Your task to perform on an android device: Go to display settings Image 0: 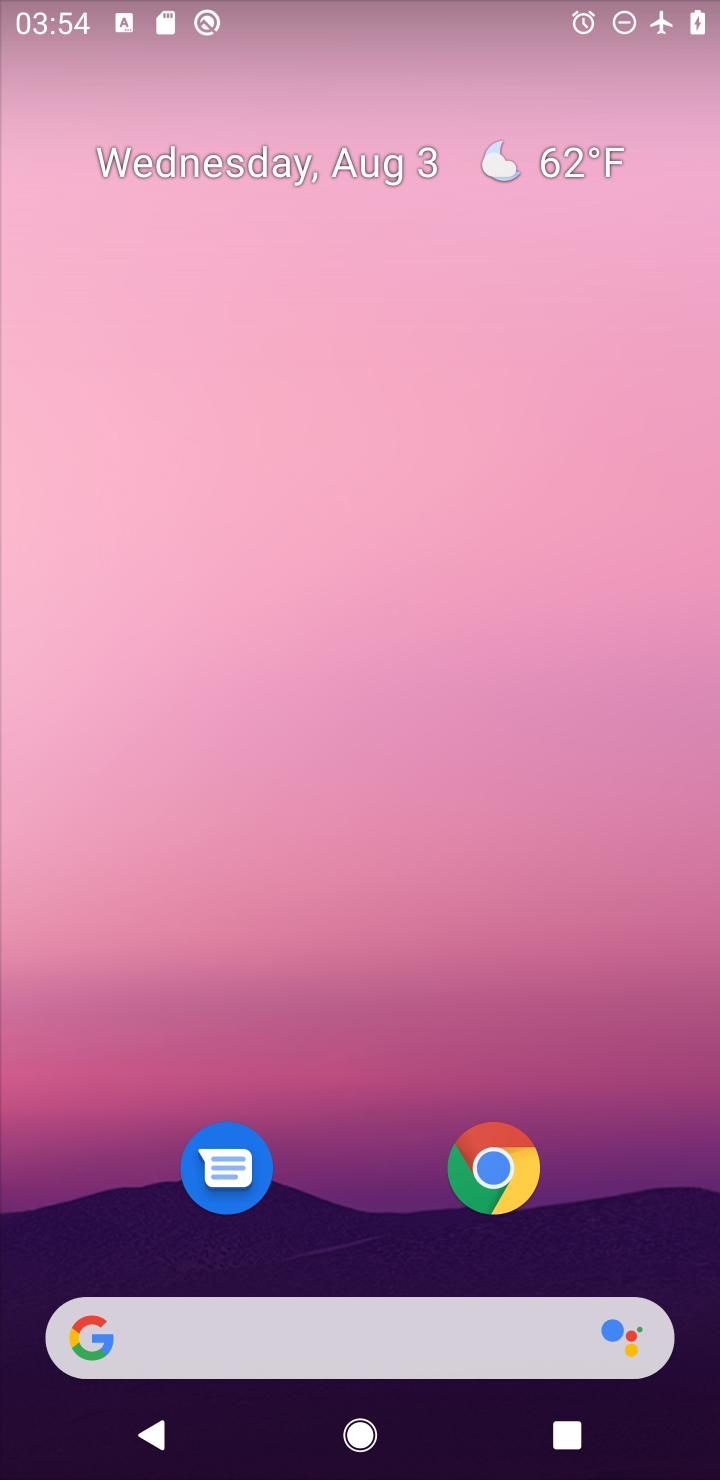
Step 0: drag from (661, 1234) to (615, 362)
Your task to perform on an android device: Go to display settings Image 1: 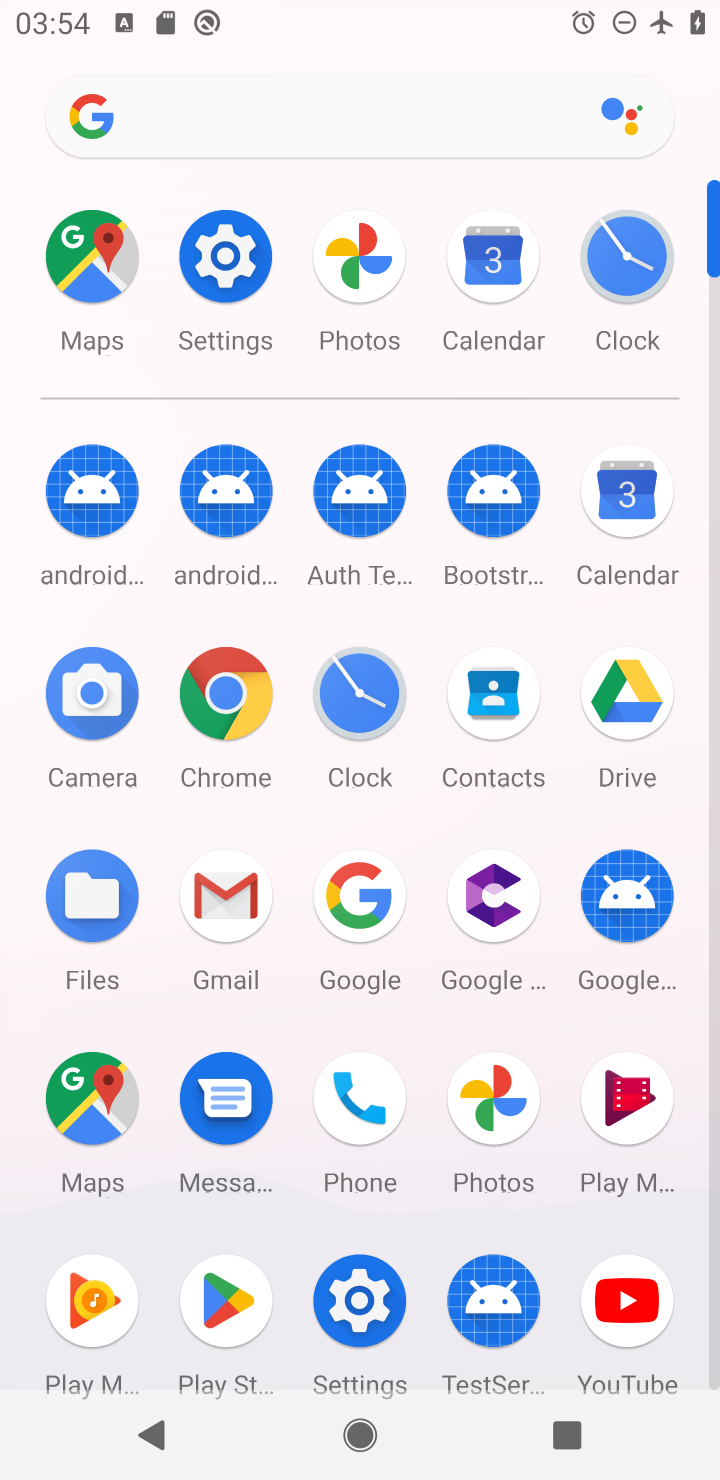
Step 1: click (357, 1304)
Your task to perform on an android device: Go to display settings Image 2: 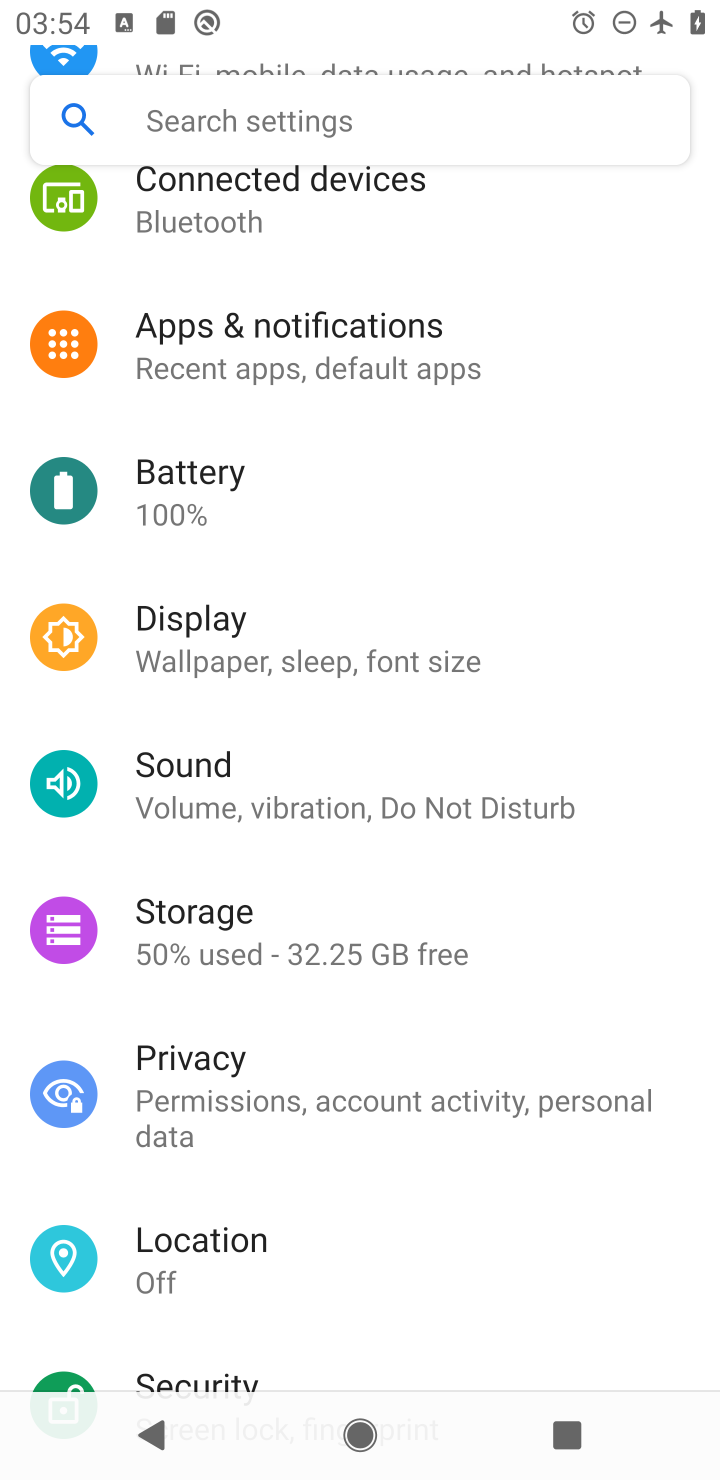
Step 2: click (191, 620)
Your task to perform on an android device: Go to display settings Image 3: 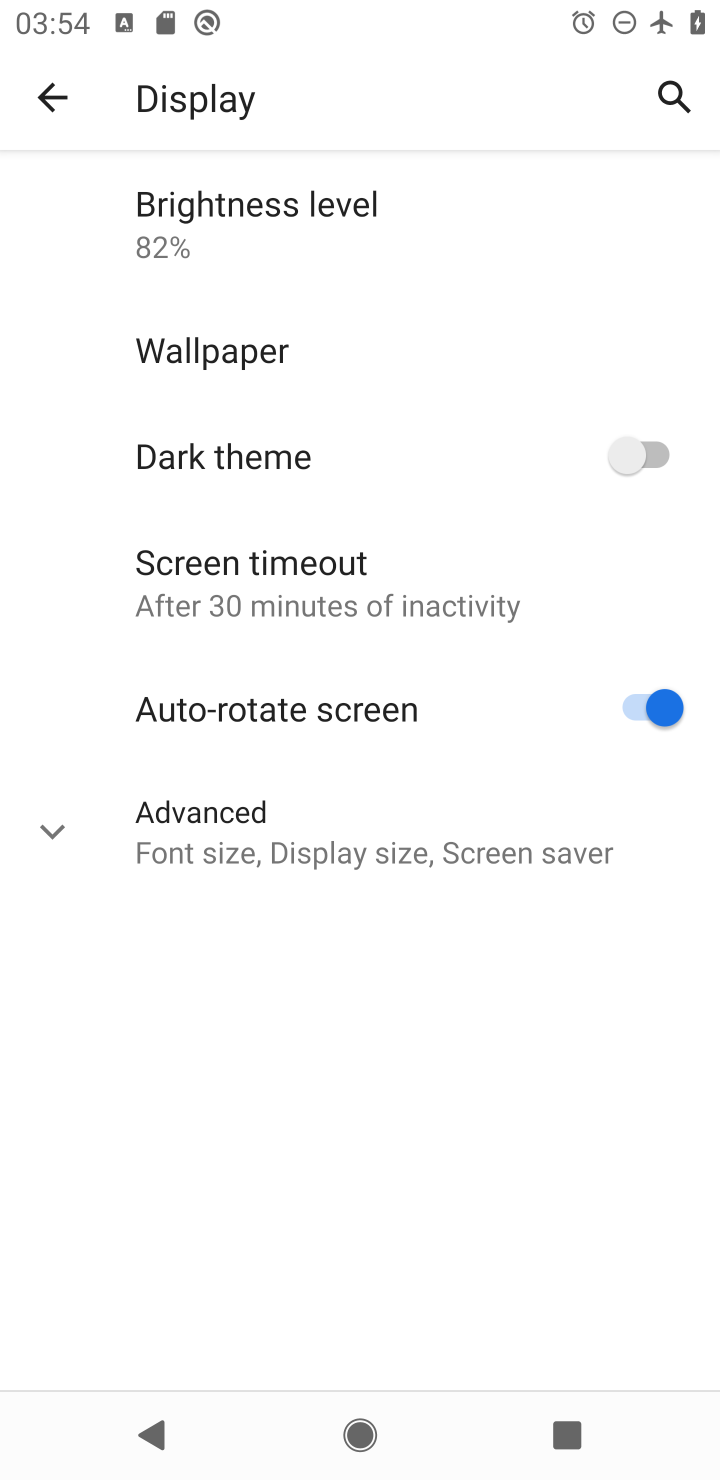
Step 3: click (53, 836)
Your task to perform on an android device: Go to display settings Image 4: 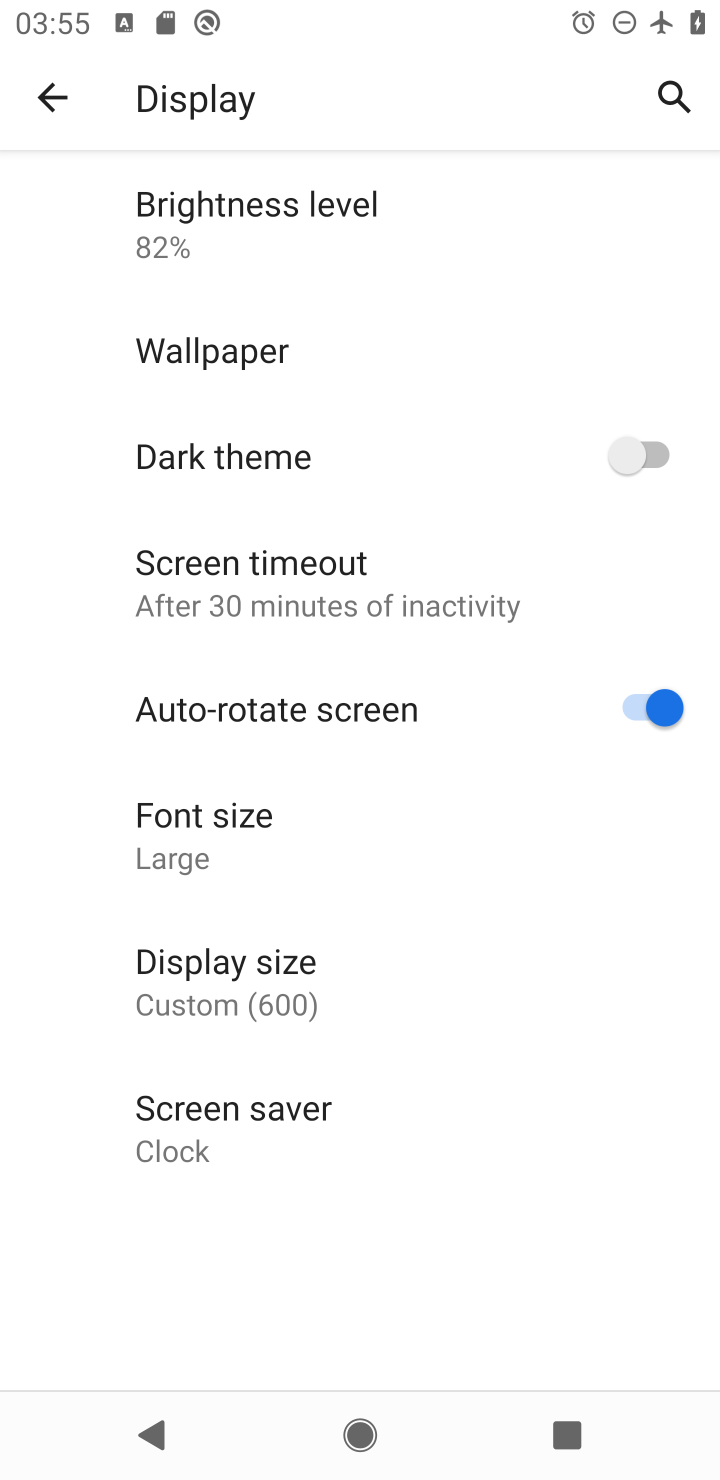
Step 4: task complete